Your task to perform on an android device: What's the weather? Image 0: 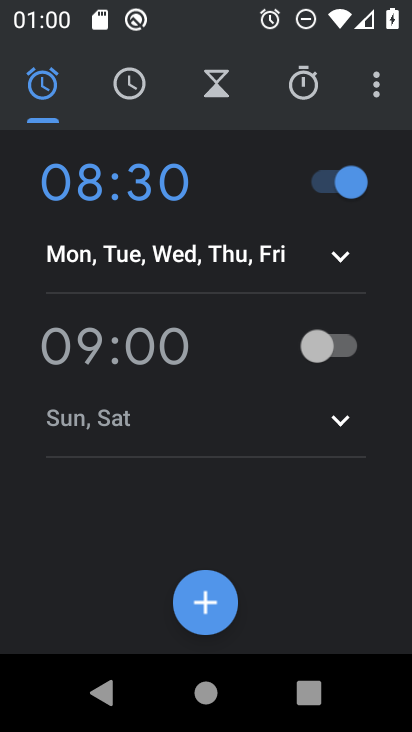
Step 0: press home button
Your task to perform on an android device: What's the weather? Image 1: 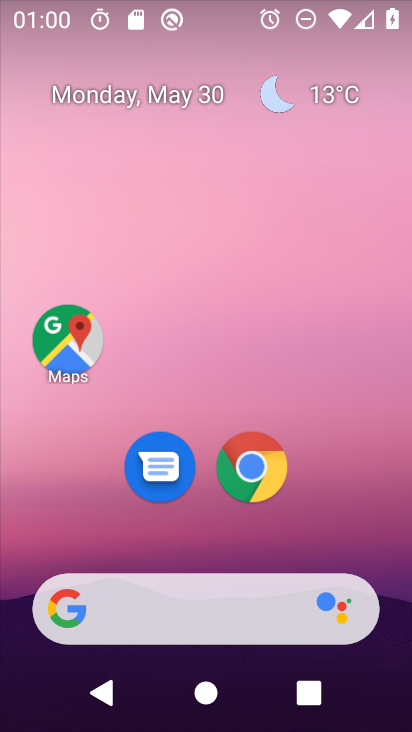
Step 1: drag from (194, 538) to (197, 147)
Your task to perform on an android device: What's the weather? Image 2: 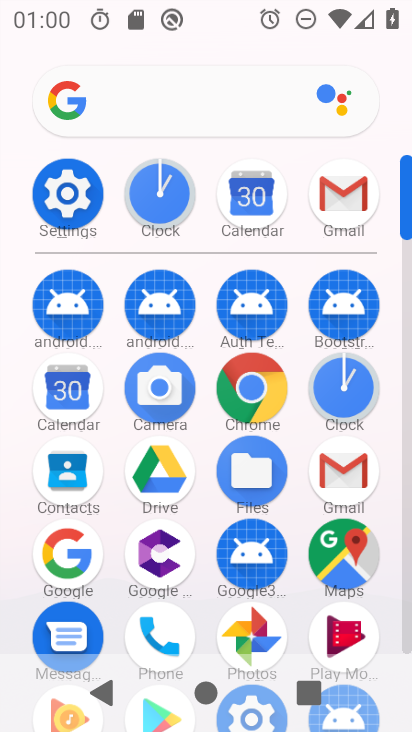
Step 2: click (66, 558)
Your task to perform on an android device: What's the weather? Image 3: 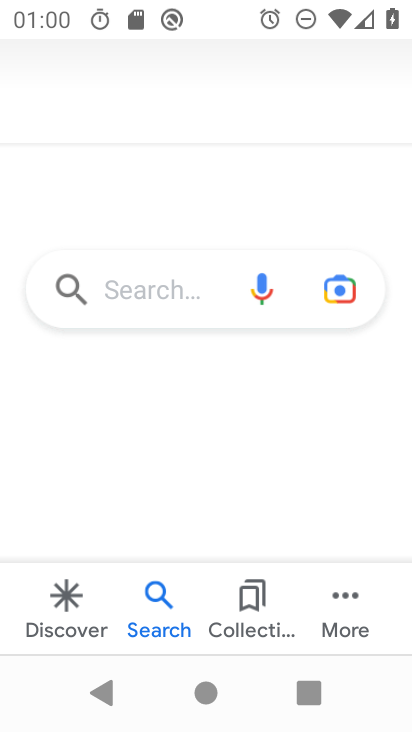
Step 3: click (145, 275)
Your task to perform on an android device: What's the weather? Image 4: 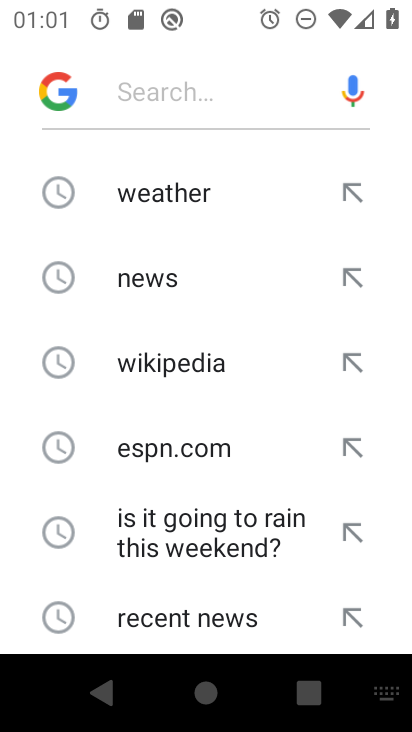
Step 4: click (196, 183)
Your task to perform on an android device: What's the weather? Image 5: 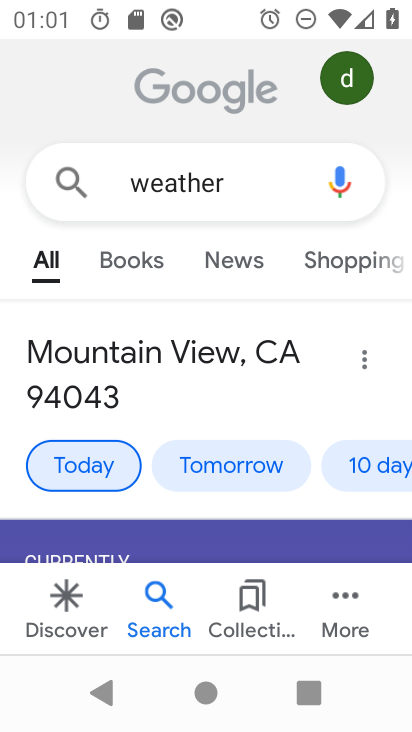
Step 5: task complete